Your task to perform on an android device: Open Google Chrome and open the bookmarks view Image 0: 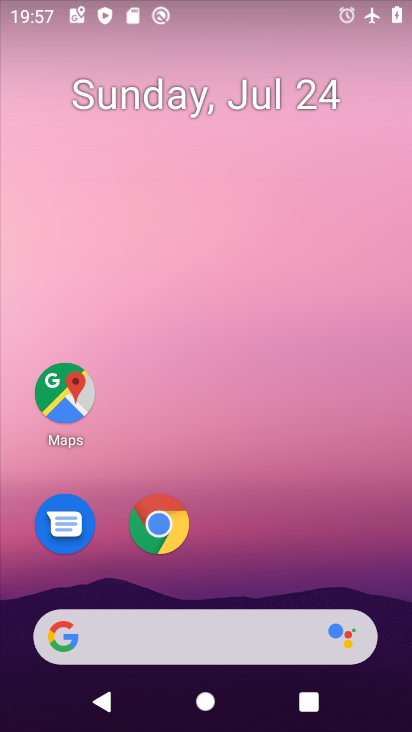
Step 0: click (176, 519)
Your task to perform on an android device: Open Google Chrome and open the bookmarks view Image 1: 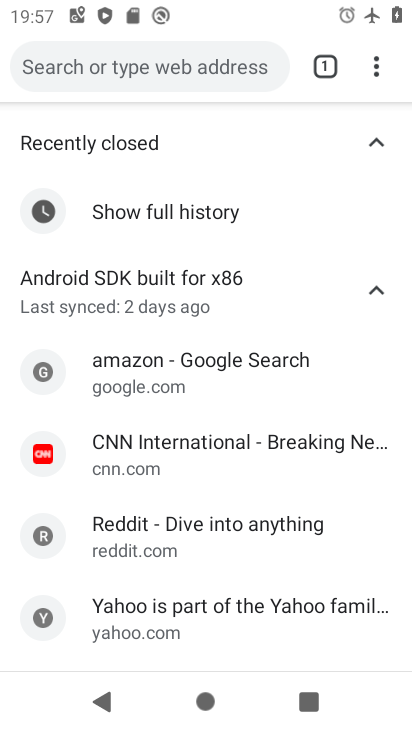
Step 1: click (372, 64)
Your task to perform on an android device: Open Google Chrome and open the bookmarks view Image 2: 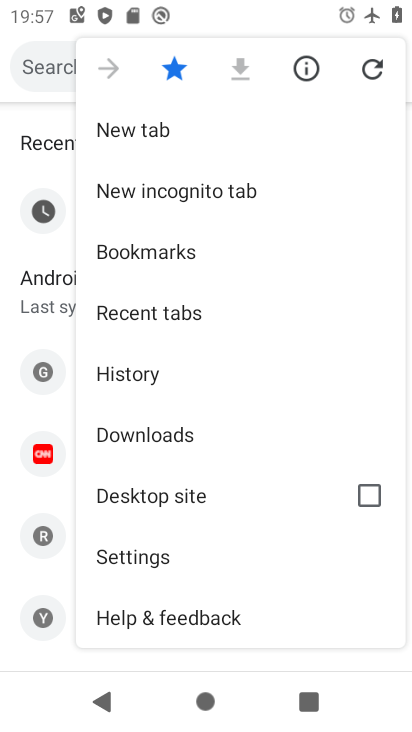
Step 2: click (187, 250)
Your task to perform on an android device: Open Google Chrome and open the bookmarks view Image 3: 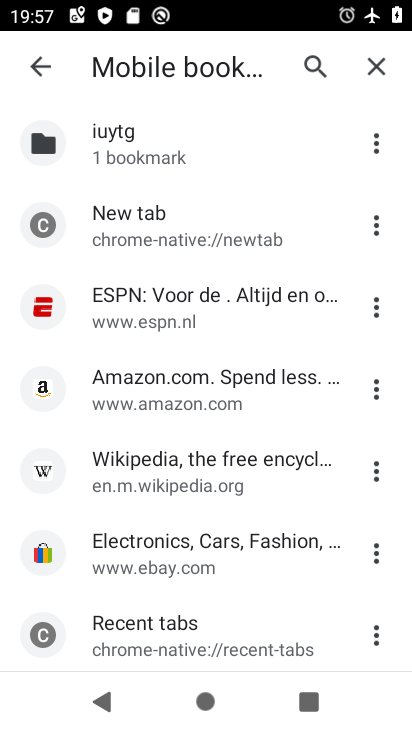
Step 3: task complete